Your task to perform on an android device: Clear the cart on target. Search for razer naga on target, select the first entry, and add it to the cart. Image 0: 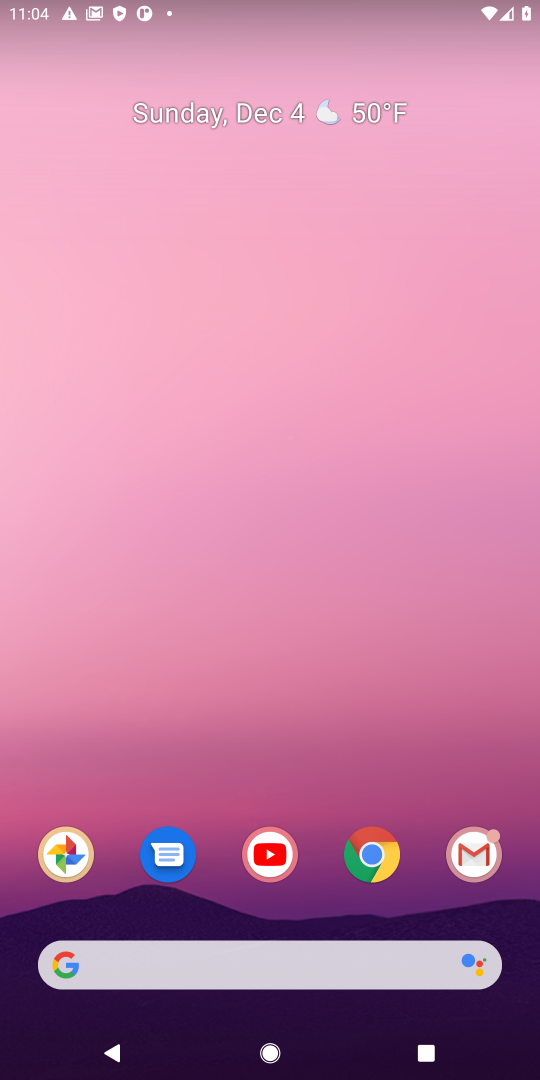
Step 0: click (233, 963)
Your task to perform on an android device: Clear the cart on target. Search for razer naga on target, select the first entry, and add it to the cart. Image 1: 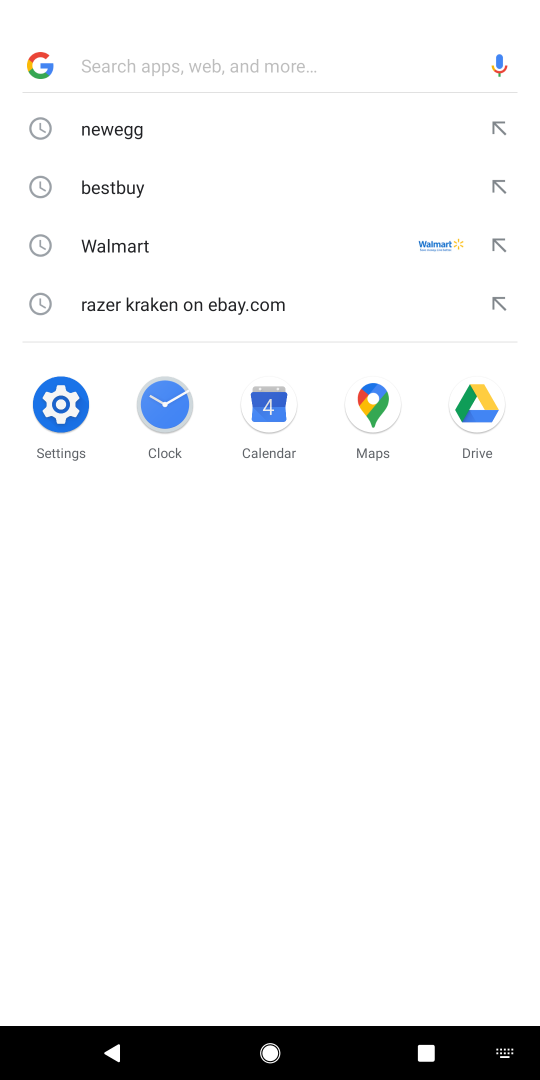
Step 1: type "target"
Your task to perform on an android device: Clear the cart on target. Search for razer naga on target, select the first entry, and add it to the cart. Image 2: 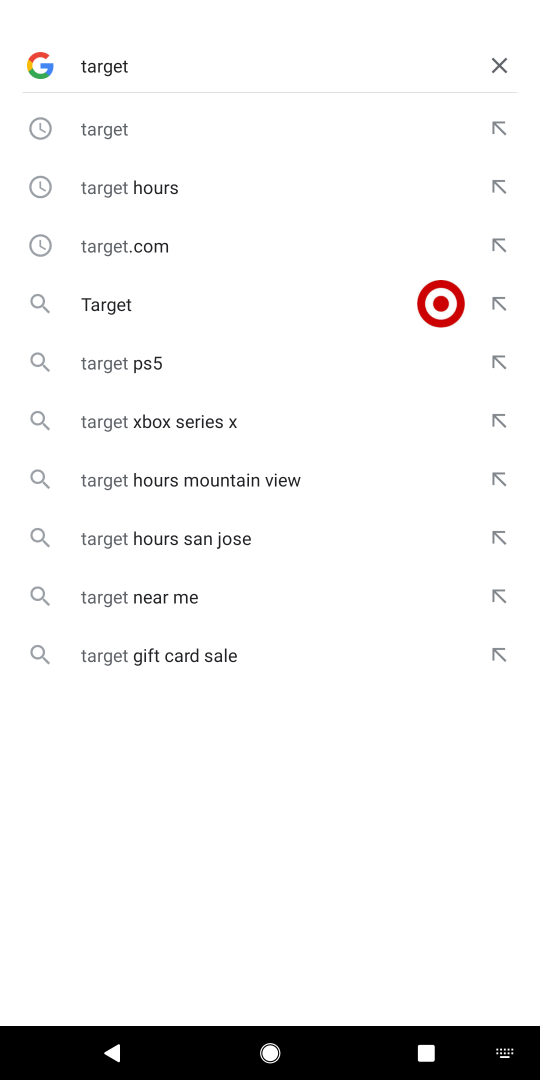
Step 2: click (201, 163)
Your task to perform on an android device: Clear the cart on target. Search for razer naga on target, select the first entry, and add it to the cart. Image 3: 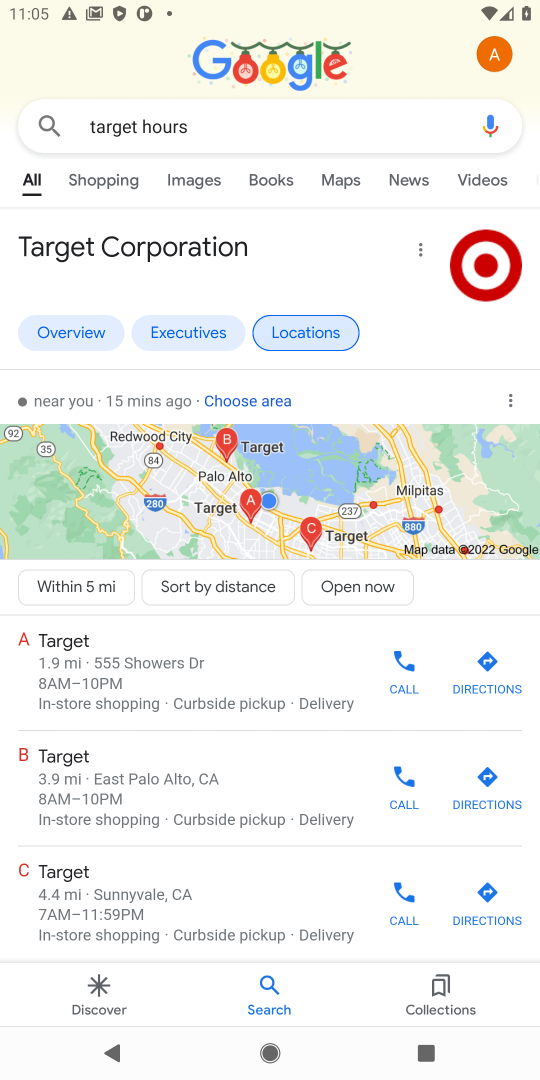
Step 3: task complete